Your task to perform on an android device: set the timer Image 0: 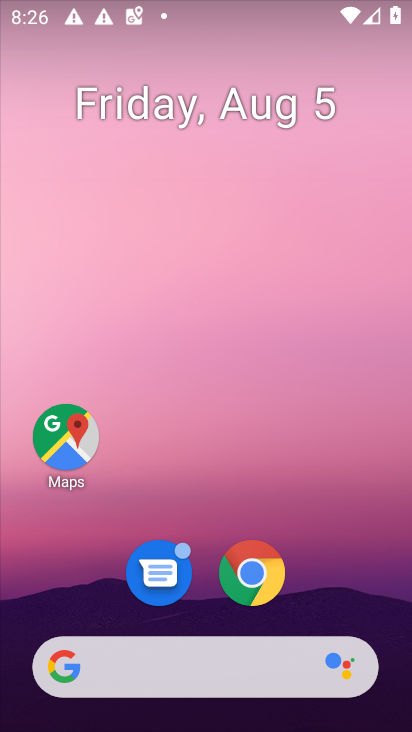
Step 0: drag from (206, 676) to (264, 187)
Your task to perform on an android device: set the timer Image 1: 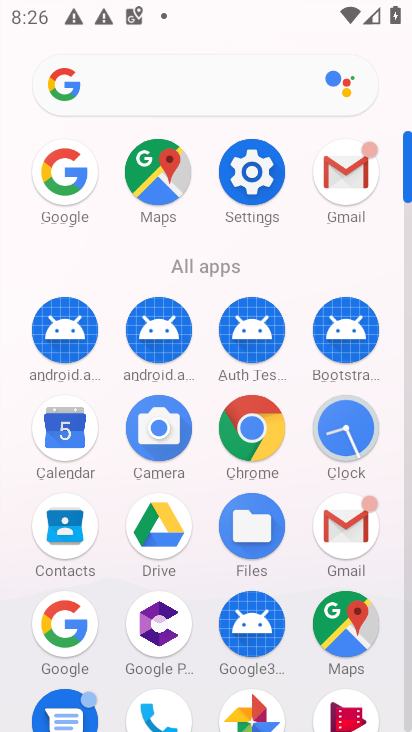
Step 1: click (346, 427)
Your task to perform on an android device: set the timer Image 2: 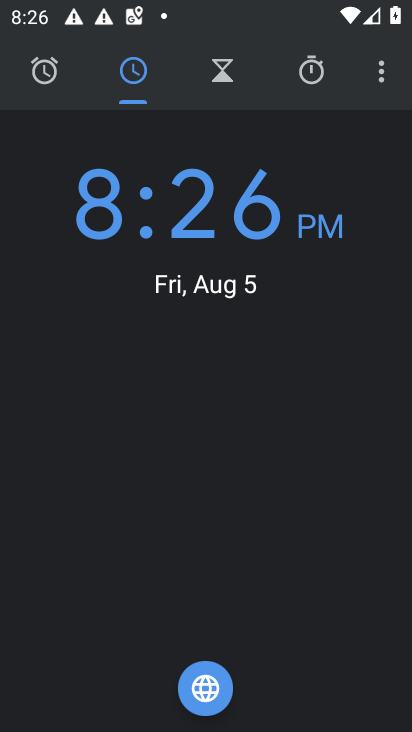
Step 2: click (227, 75)
Your task to perform on an android device: set the timer Image 3: 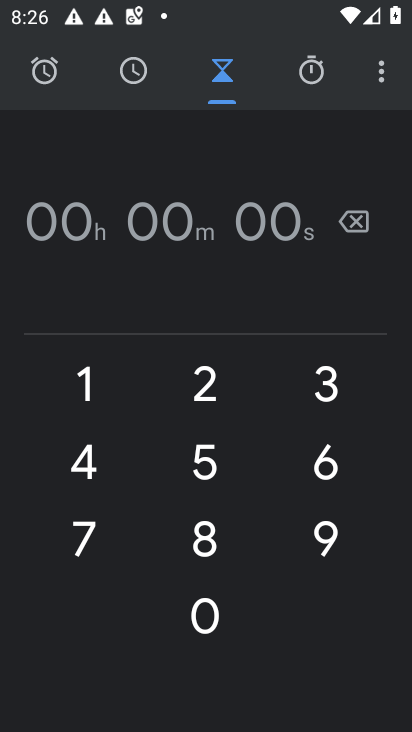
Step 3: type "148"
Your task to perform on an android device: set the timer Image 4: 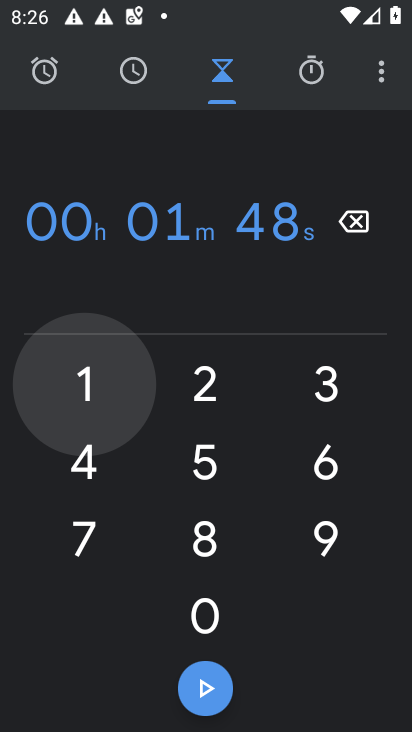
Step 4: click (209, 681)
Your task to perform on an android device: set the timer Image 5: 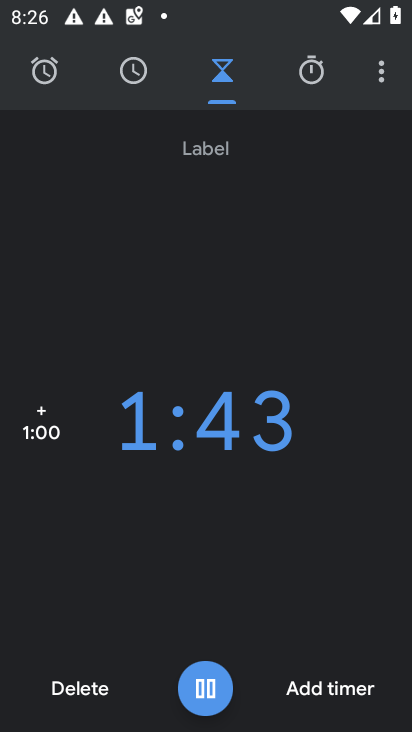
Step 5: click (209, 681)
Your task to perform on an android device: set the timer Image 6: 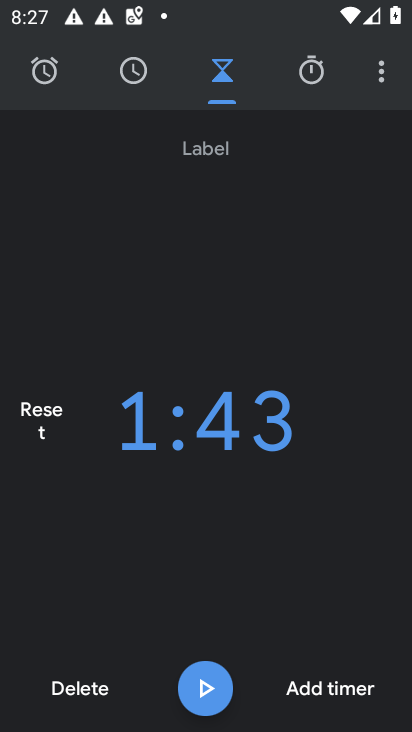
Step 6: task complete